Your task to perform on an android device: Open Amazon Image 0: 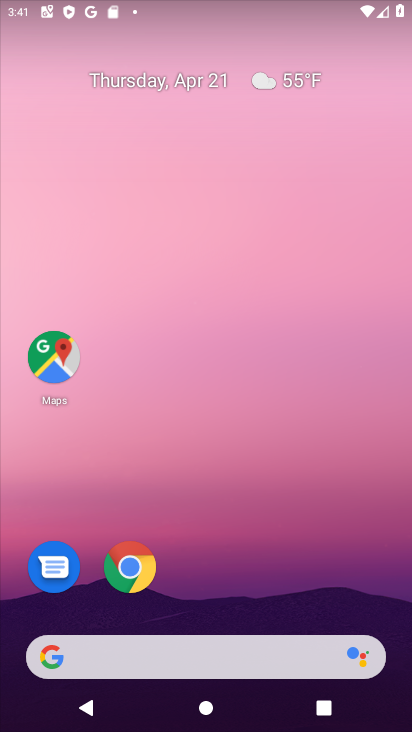
Step 0: press home button
Your task to perform on an android device: Open Amazon Image 1: 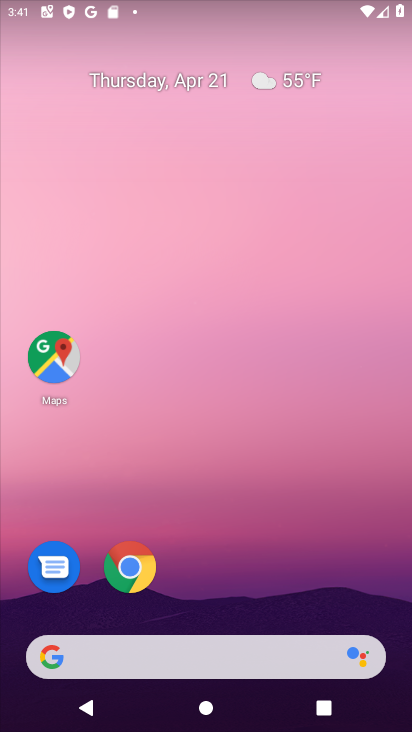
Step 1: drag from (200, 588) to (237, 131)
Your task to perform on an android device: Open Amazon Image 2: 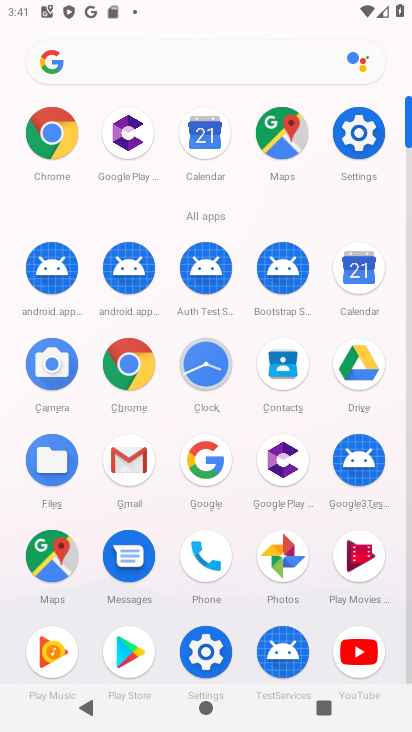
Step 2: click (39, 124)
Your task to perform on an android device: Open Amazon Image 3: 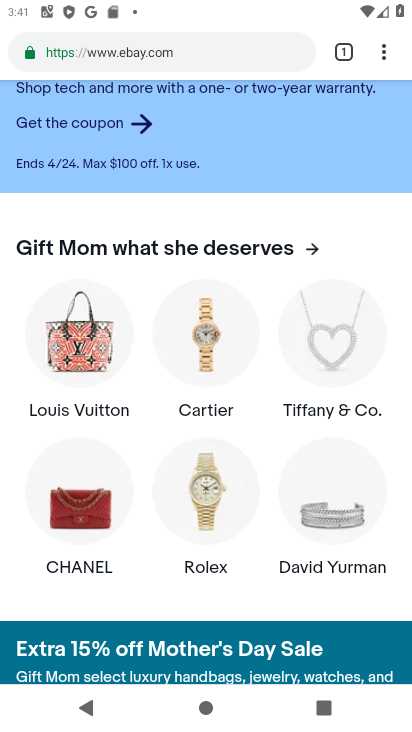
Step 3: click (341, 43)
Your task to perform on an android device: Open Amazon Image 4: 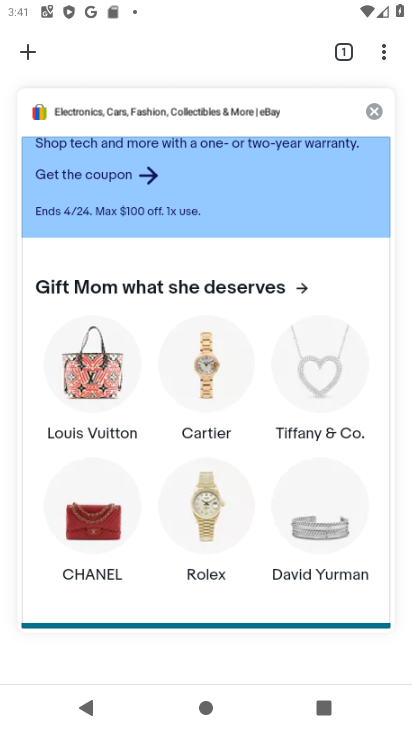
Step 4: click (28, 45)
Your task to perform on an android device: Open Amazon Image 5: 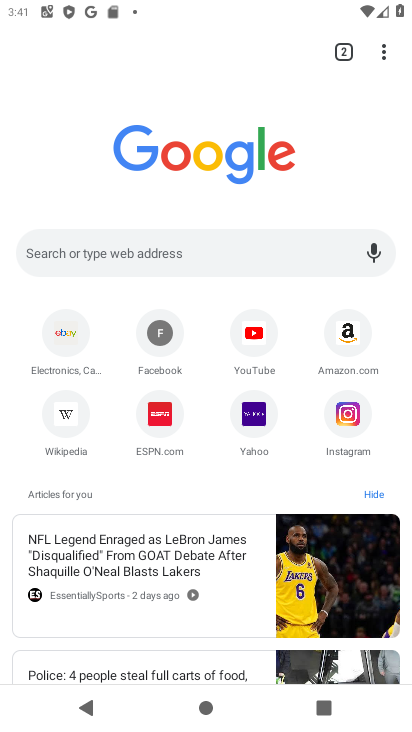
Step 5: click (335, 318)
Your task to perform on an android device: Open Amazon Image 6: 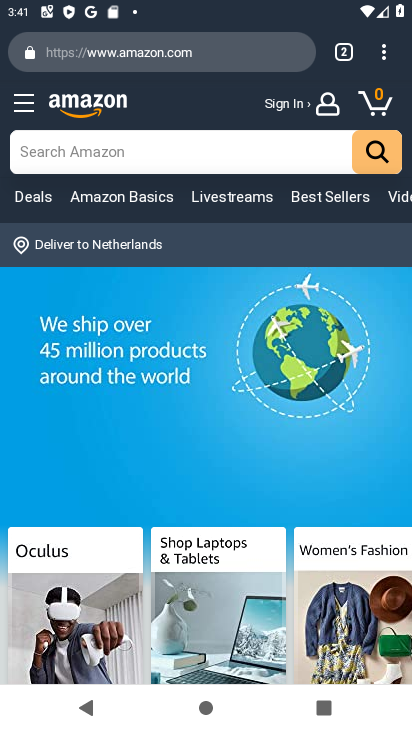
Step 6: task complete